Your task to perform on an android device: change the upload size in google photos Image 0: 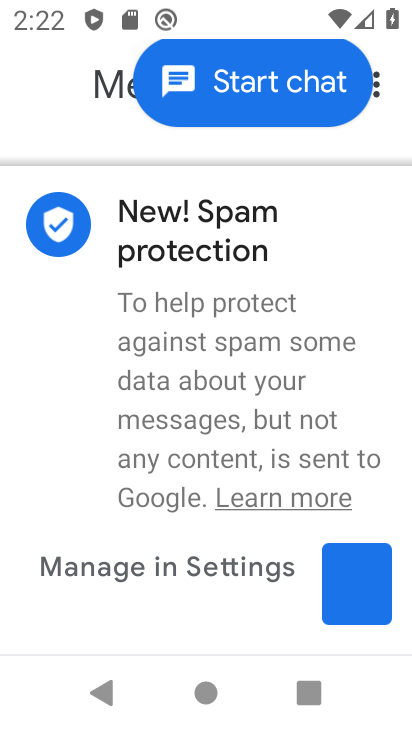
Step 0: press home button
Your task to perform on an android device: change the upload size in google photos Image 1: 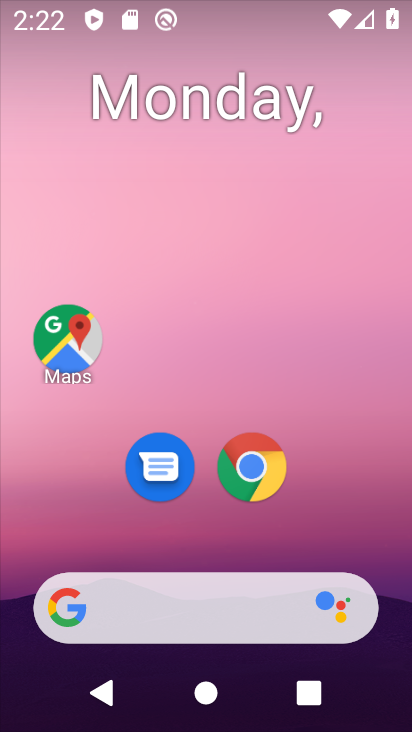
Step 1: drag from (389, 528) to (315, 165)
Your task to perform on an android device: change the upload size in google photos Image 2: 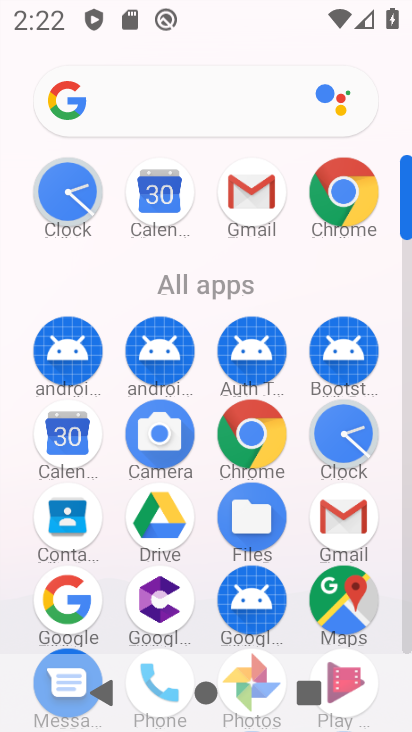
Step 2: click (406, 642)
Your task to perform on an android device: change the upload size in google photos Image 3: 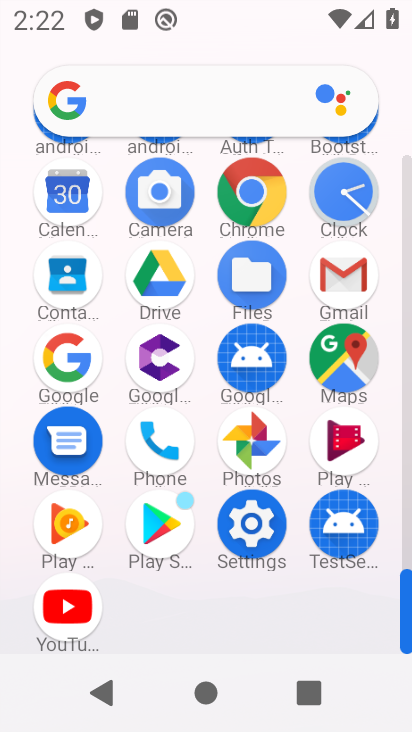
Step 3: click (265, 428)
Your task to perform on an android device: change the upload size in google photos Image 4: 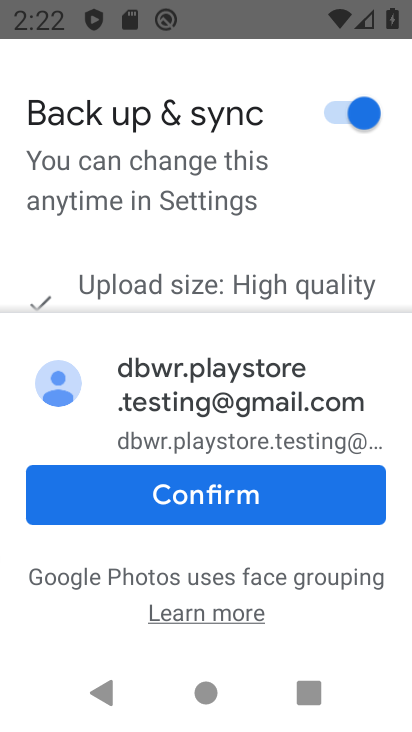
Step 4: click (270, 493)
Your task to perform on an android device: change the upload size in google photos Image 5: 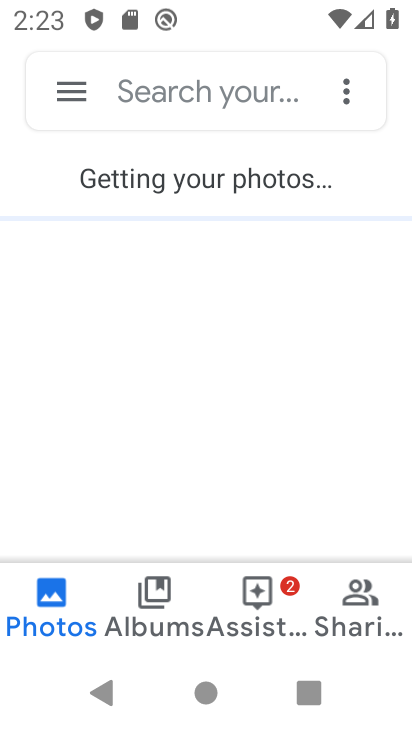
Step 5: click (61, 91)
Your task to perform on an android device: change the upload size in google photos Image 6: 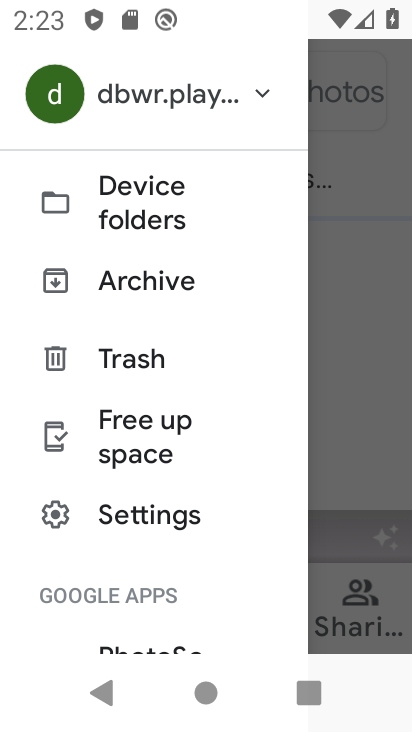
Step 6: click (192, 524)
Your task to perform on an android device: change the upload size in google photos Image 7: 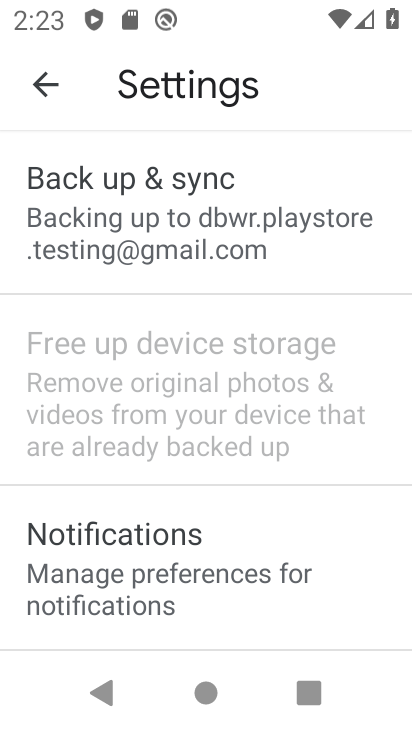
Step 7: click (246, 216)
Your task to perform on an android device: change the upload size in google photos Image 8: 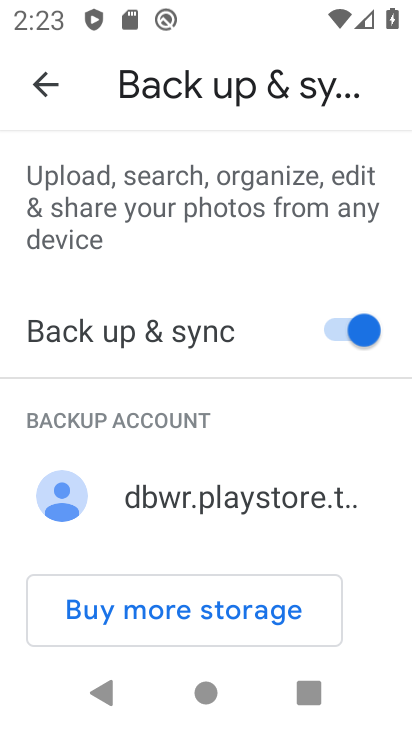
Step 8: drag from (266, 542) to (221, 163)
Your task to perform on an android device: change the upload size in google photos Image 9: 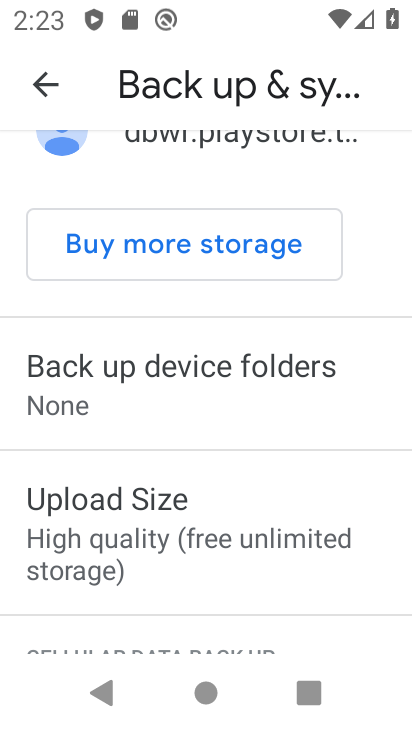
Step 9: click (228, 518)
Your task to perform on an android device: change the upload size in google photos Image 10: 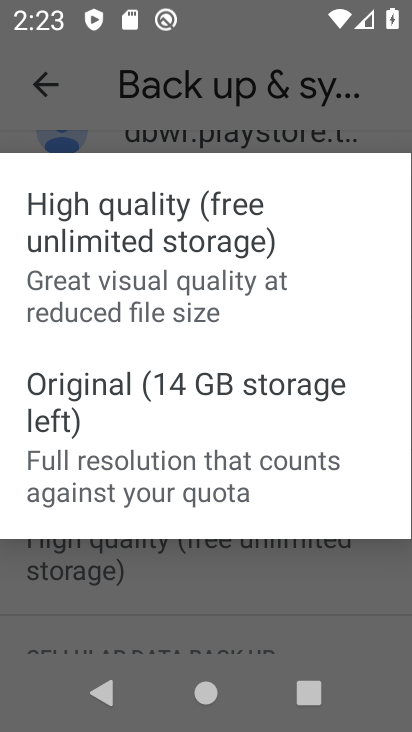
Step 10: click (227, 448)
Your task to perform on an android device: change the upload size in google photos Image 11: 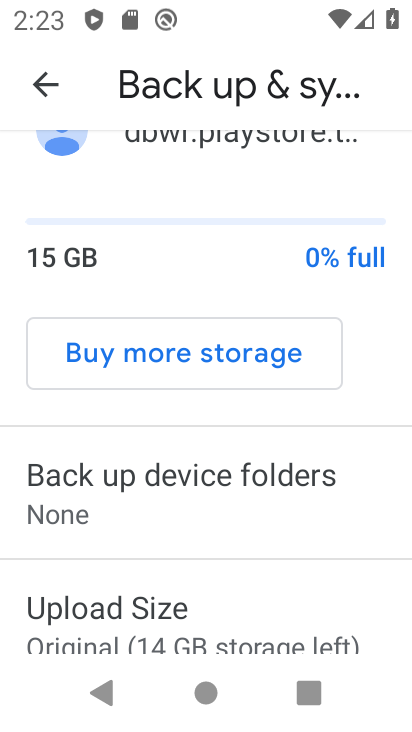
Step 11: task complete